Your task to perform on an android device: open app "ZOOM Cloud Meetings" (install if not already installed), go to login, and select forgot password Image 0: 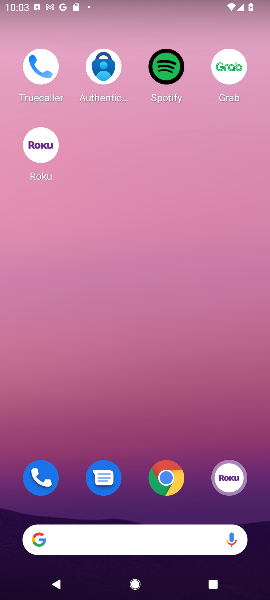
Step 0: drag from (128, 510) to (137, 72)
Your task to perform on an android device: open app "ZOOM Cloud Meetings" (install if not already installed), go to login, and select forgot password Image 1: 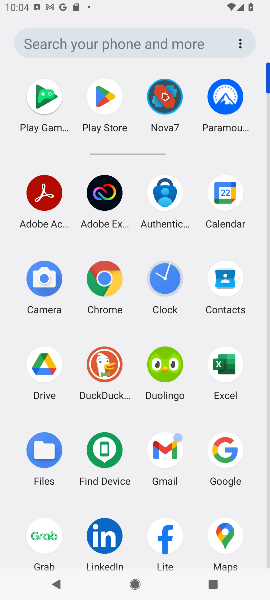
Step 1: click (102, 93)
Your task to perform on an android device: open app "ZOOM Cloud Meetings" (install if not already installed), go to login, and select forgot password Image 2: 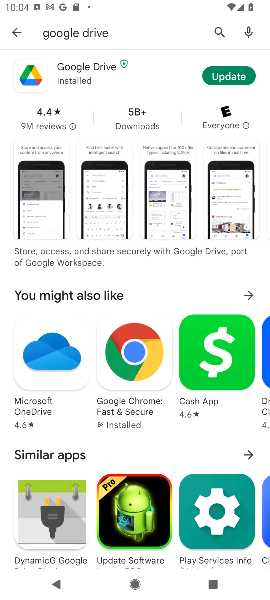
Step 2: click (213, 37)
Your task to perform on an android device: open app "ZOOM Cloud Meetings" (install if not already installed), go to login, and select forgot password Image 3: 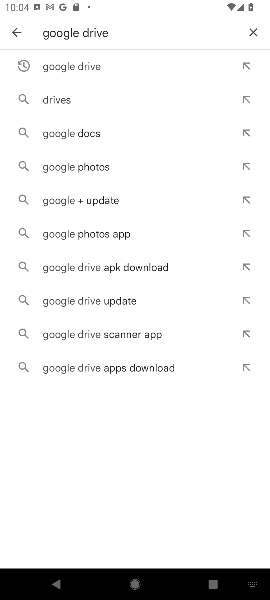
Step 3: click (245, 34)
Your task to perform on an android device: open app "ZOOM Cloud Meetings" (install if not already installed), go to login, and select forgot password Image 4: 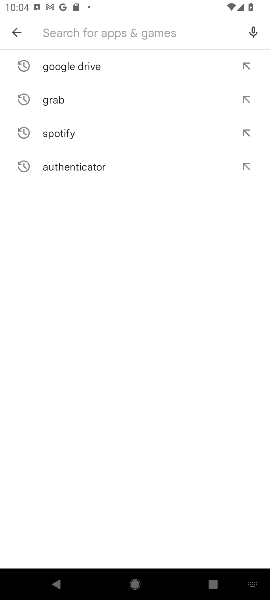
Step 4: type "zoom"
Your task to perform on an android device: open app "ZOOM Cloud Meetings" (install if not already installed), go to login, and select forgot password Image 5: 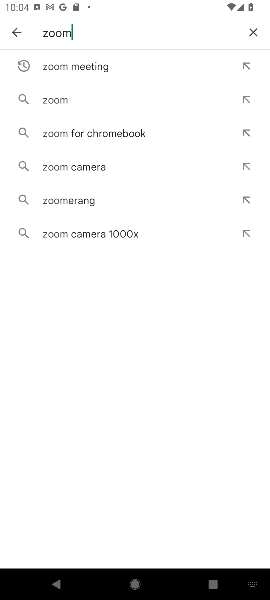
Step 5: click (132, 57)
Your task to perform on an android device: open app "ZOOM Cloud Meetings" (install if not already installed), go to login, and select forgot password Image 6: 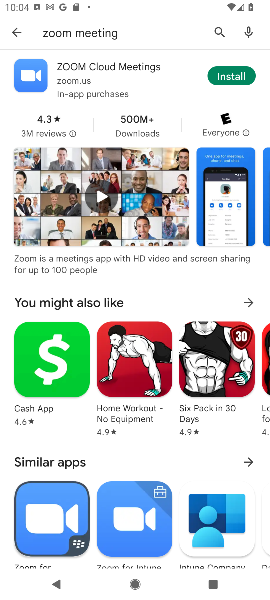
Step 6: click (243, 79)
Your task to perform on an android device: open app "ZOOM Cloud Meetings" (install if not already installed), go to login, and select forgot password Image 7: 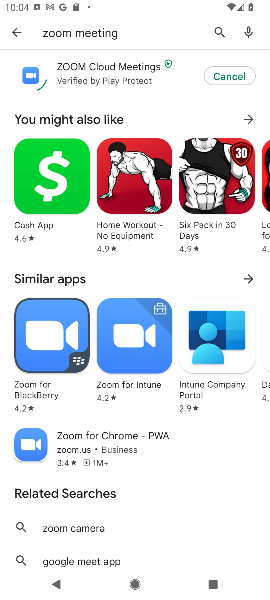
Step 7: task complete